Your task to perform on an android device: Open Google Chrome and open the bookmarks view Image 0: 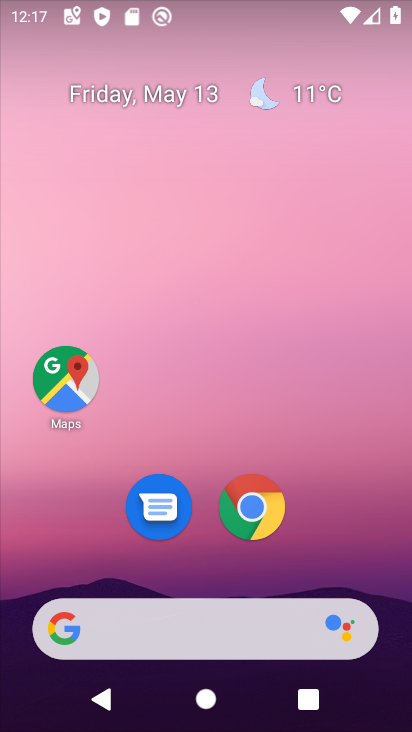
Step 0: click (33, 381)
Your task to perform on an android device: Open Google Chrome and open the bookmarks view Image 1: 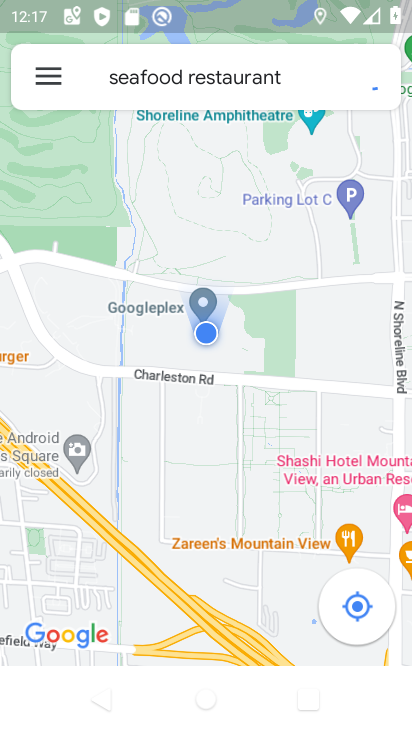
Step 1: press home button
Your task to perform on an android device: Open Google Chrome and open the bookmarks view Image 2: 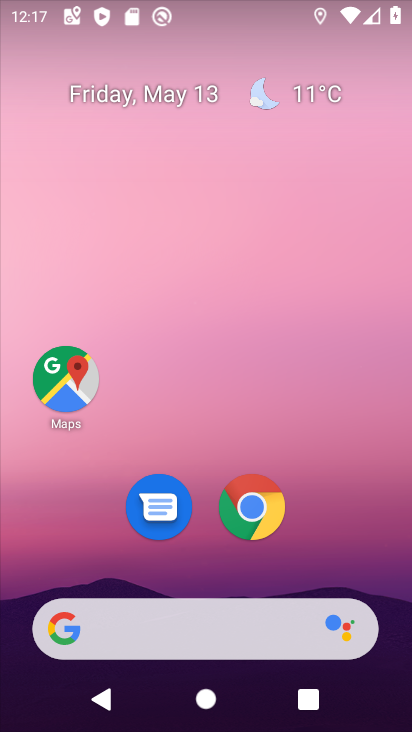
Step 2: click (245, 497)
Your task to perform on an android device: Open Google Chrome and open the bookmarks view Image 3: 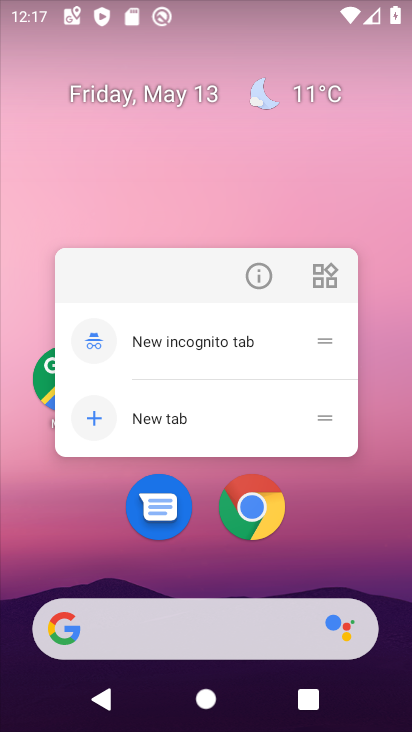
Step 3: click (249, 506)
Your task to perform on an android device: Open Google Chrome and open the bookmarks view Image 4: 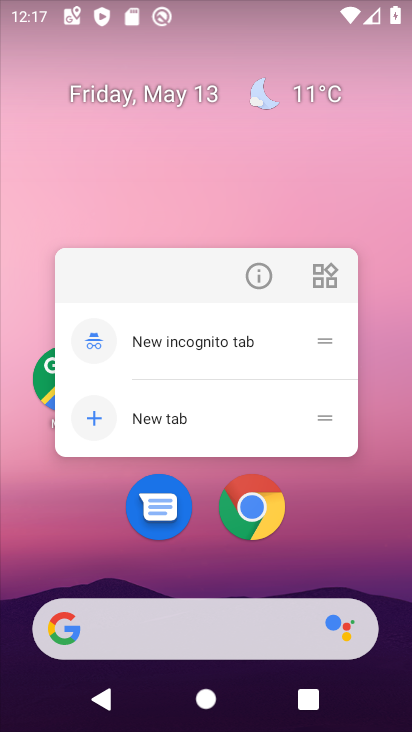
Step 4: click (258, 506)
Your task to perform on an android device: Open Google Chrome and open the bookmarks view Image 5: 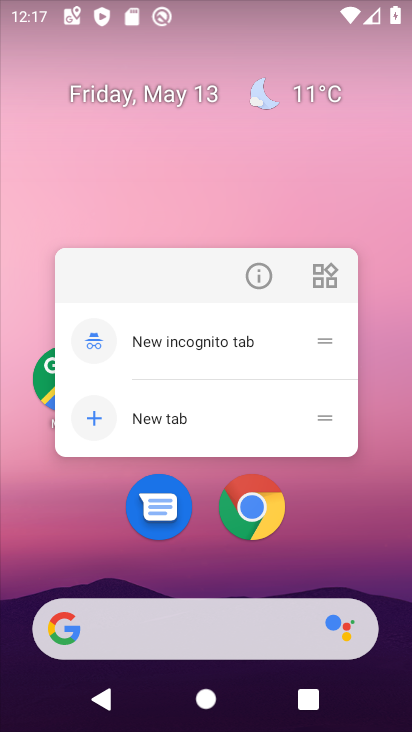
Step 5: click (261, 540)
Your task to perform on an android device: Open Google Chrome and open the bookmarks view Image 6: 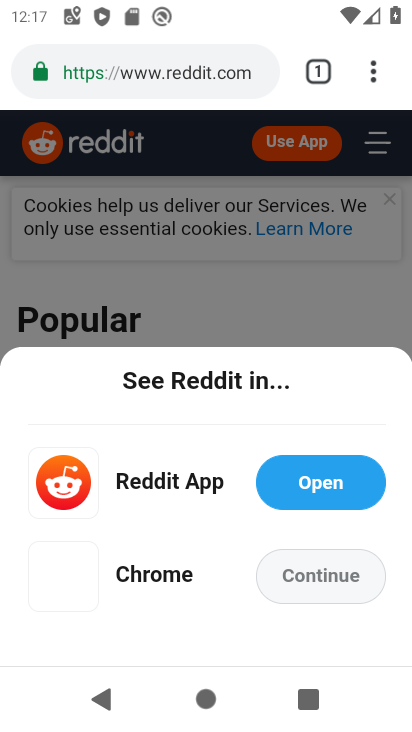
Step 6: click (374, 67)
Your task to perform on an android device: Open Google Chrome and open the bookmarks view Image 7: 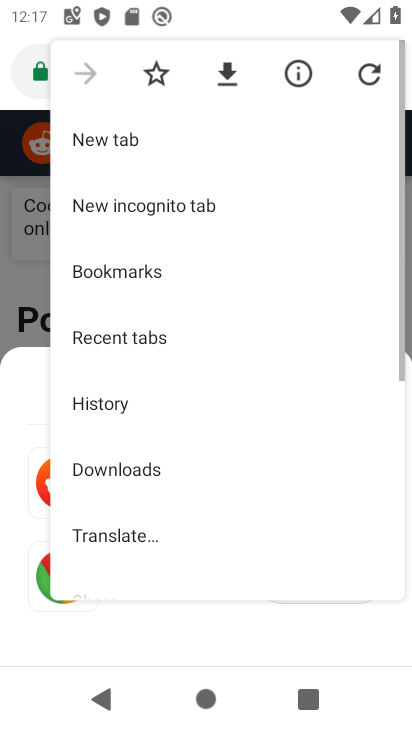
Step 7: click (166, 265)
Your task to perform on an android device: Open Google Chrome and open the bookmarks view Image 8: 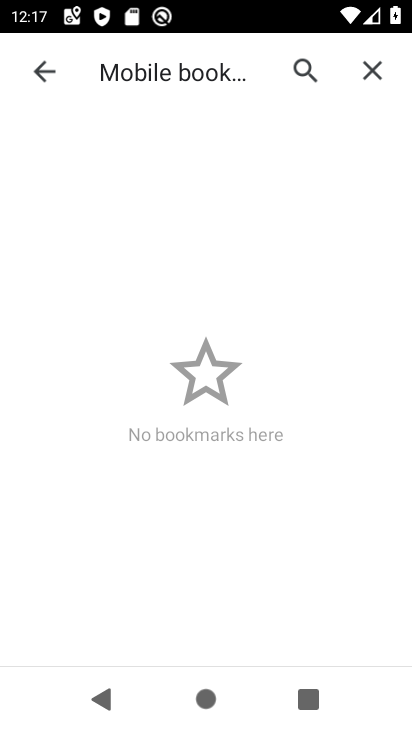
Step 8: task complete